Your task to perform on an android device: Go to sound settings Image 0: 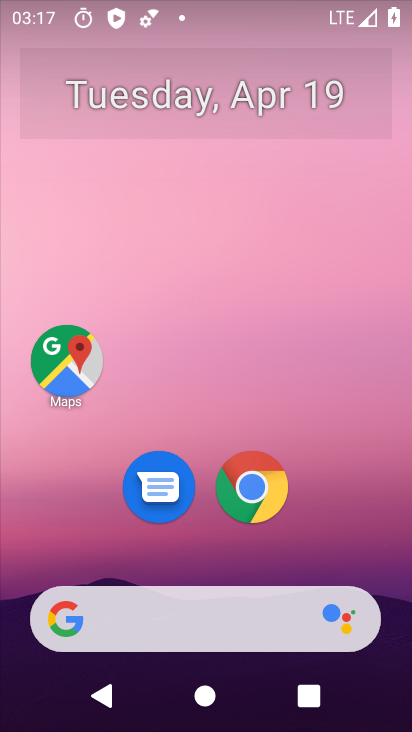
Step 0: drag from (211, 514) to (235, 49)
Your task to perform on an android device: Go to sound settings Image 1: 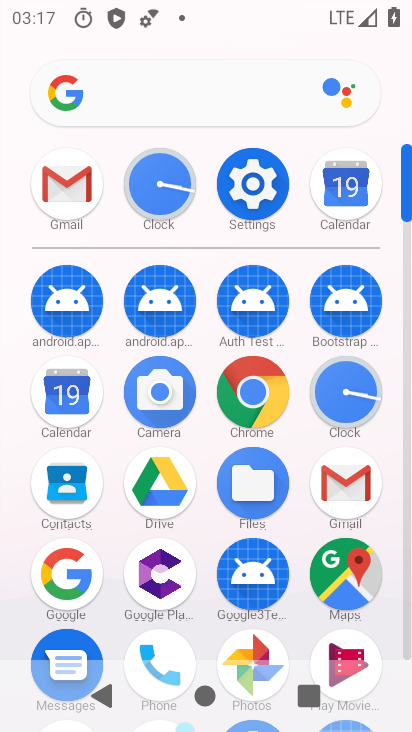
Step 1: click (246, 198)
Your task to perform on an android device: Go to sound settings Image 2: 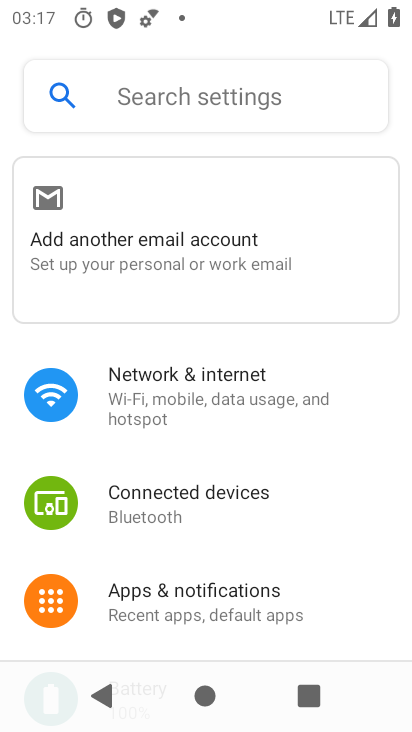
Step 2: drag from (174, 547) to (223, 63)
Your task to perform on an android device: Go to sound settings Image 3: 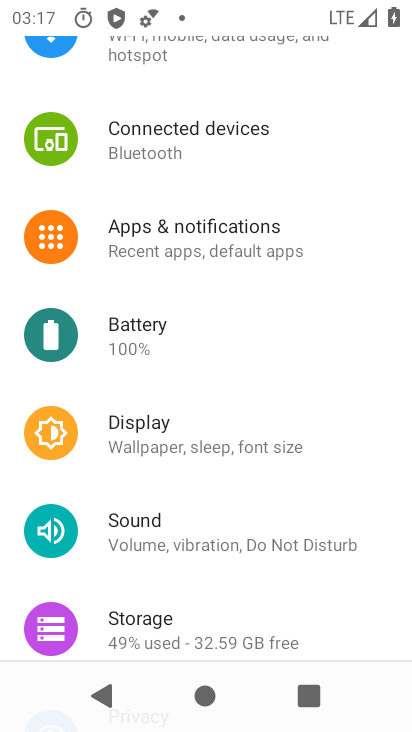
Step 3: click (164, 542)
Your task to perform on an android device: Go to sound settings Image 4: 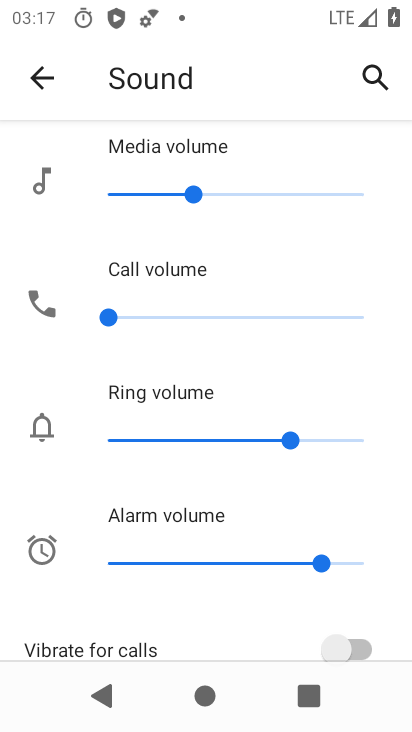
Step 4: task complete